Your task to perform on an android device: change the clock display to analog Image 0: 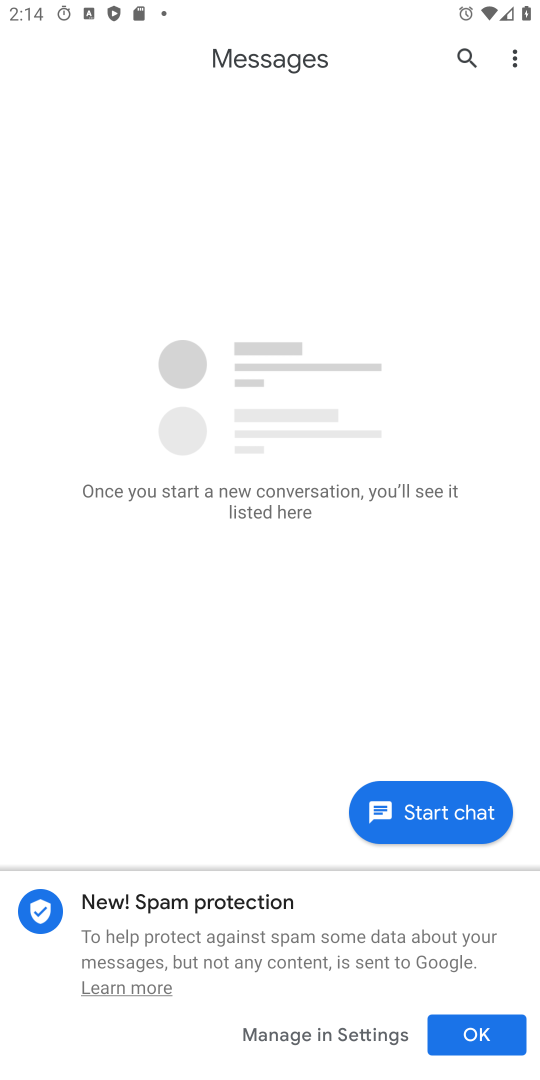
Step 0: press home button
Your task to perform on an android device: change the clock display to analog Image 1: 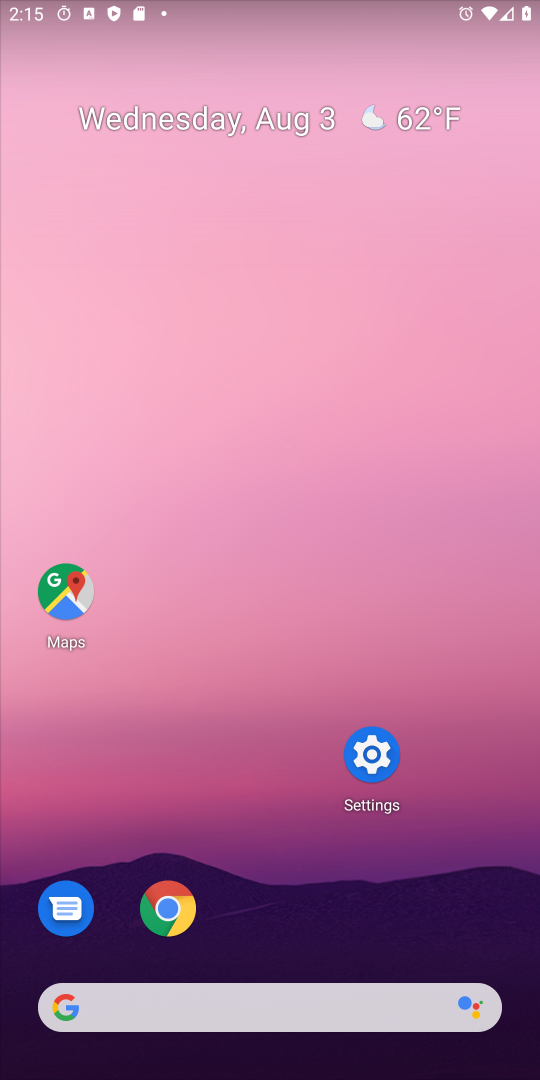
Step 1: drag from (294, 899) to (398, 131)
Your task to perform on an android device: change the clock display to analog Image 2: 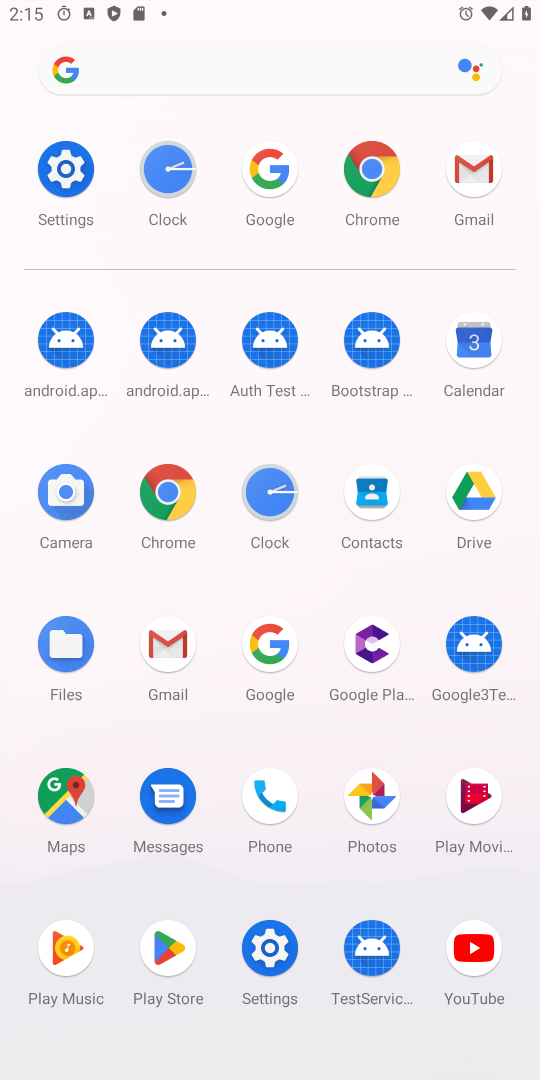
Step 2: click (274, 519)
Your task to perform on an android device: change the clock display to analog Image 3: 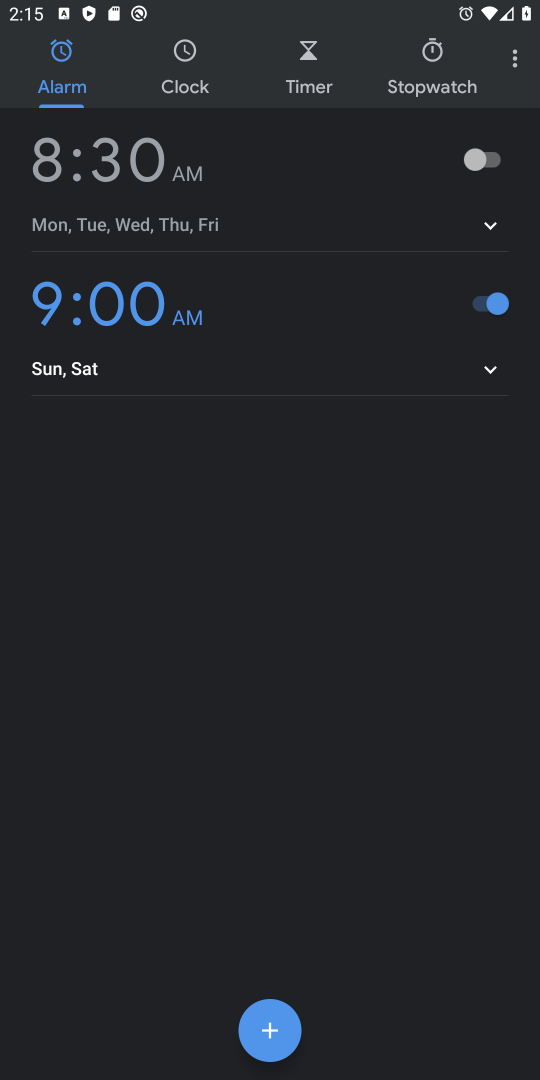
Step 3: click (524, 57)
Your task to perform on an android device: change the clock display to analog Image 4: 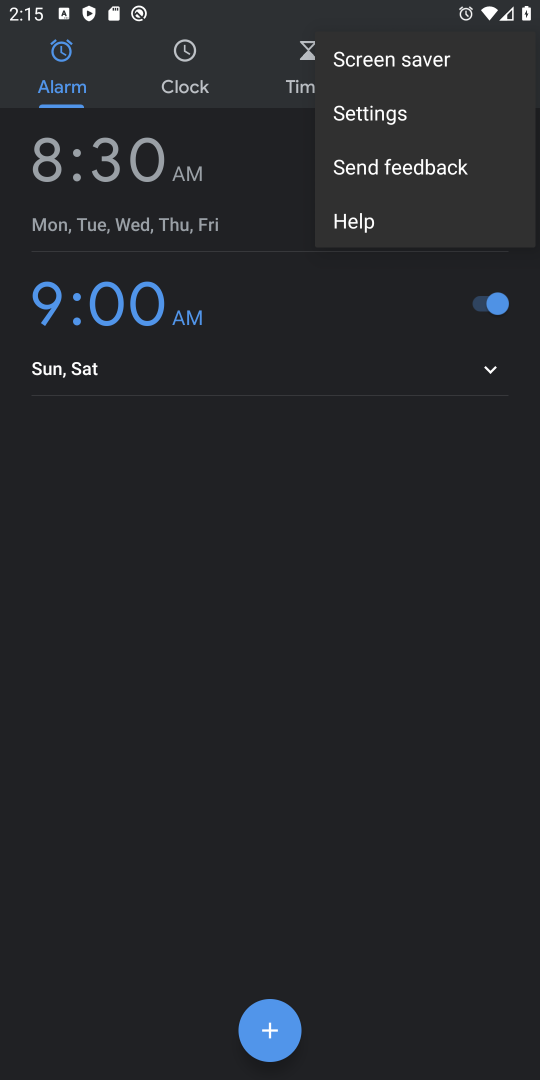
Step 4: click (453, 124)
Your task to perform on an android device: change the clock display to analog Image 5: 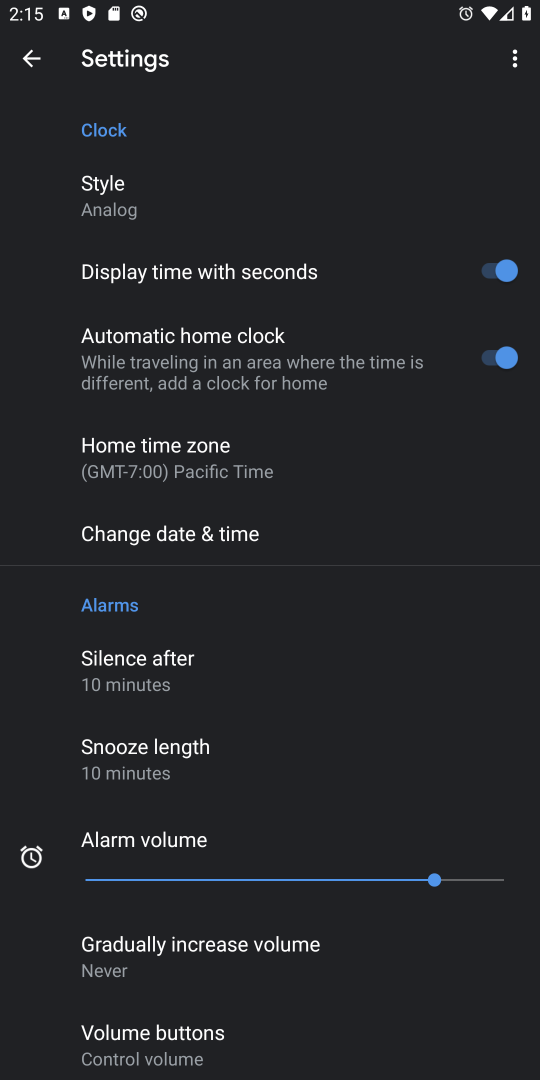
Step 5: click (206, 199)
Your task to perform on an android device: change the clock display to analog Image 6: 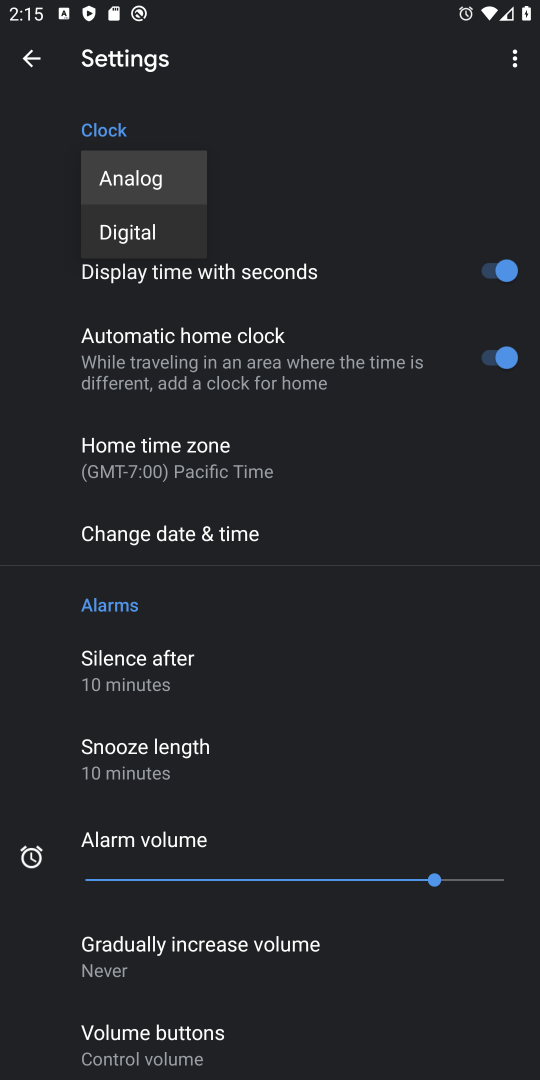
Step 6: click (168, 189)
Your task to perform on an android device: change the clock display to analog Image 7: 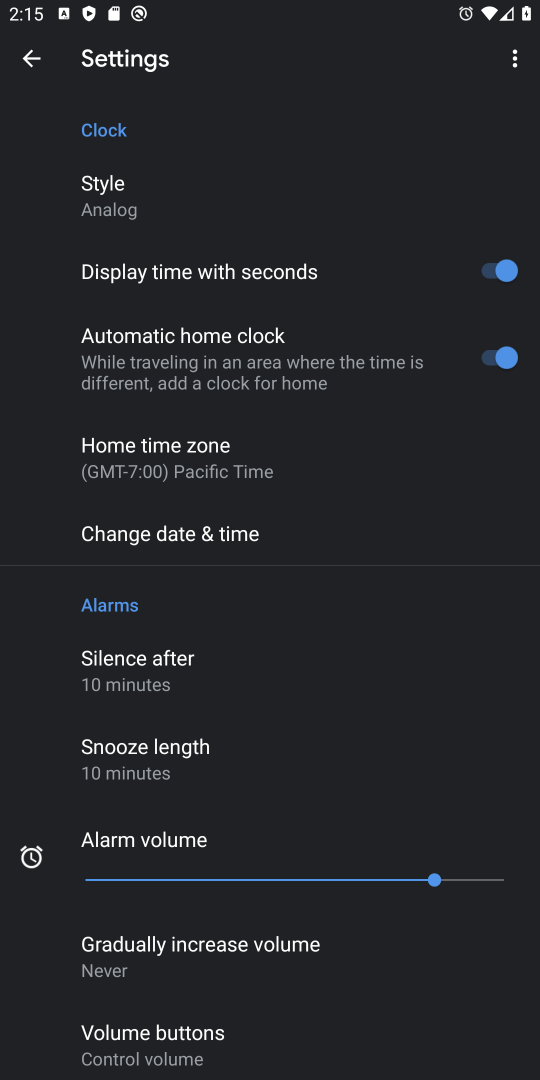
Step 7: task complete